Your task to perform on an android device: Go to network settings Image 0: 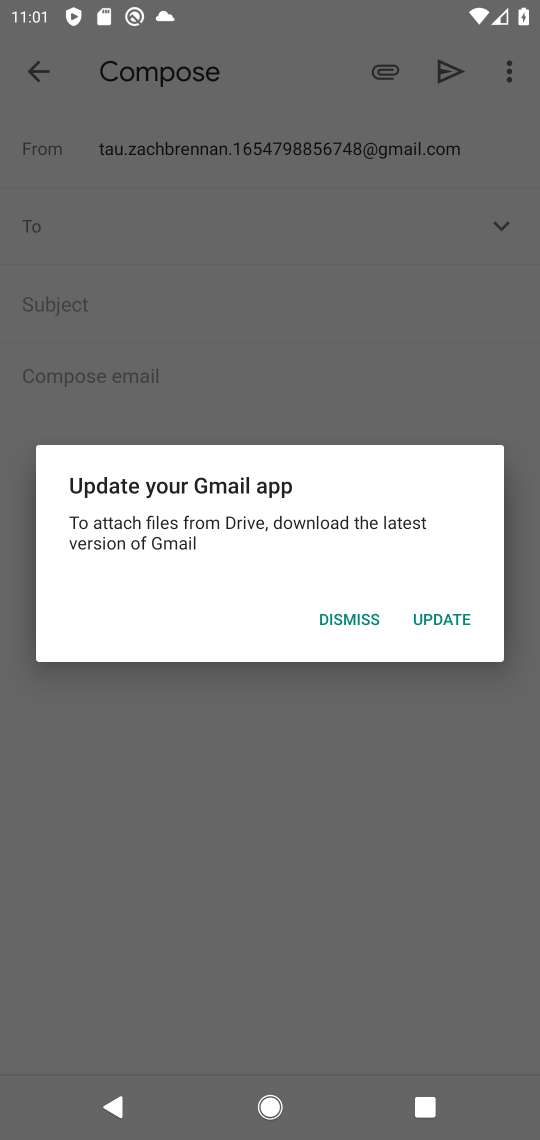
Step 0: press home button
Your task to perform on an android device: Go to network settings Image 1: 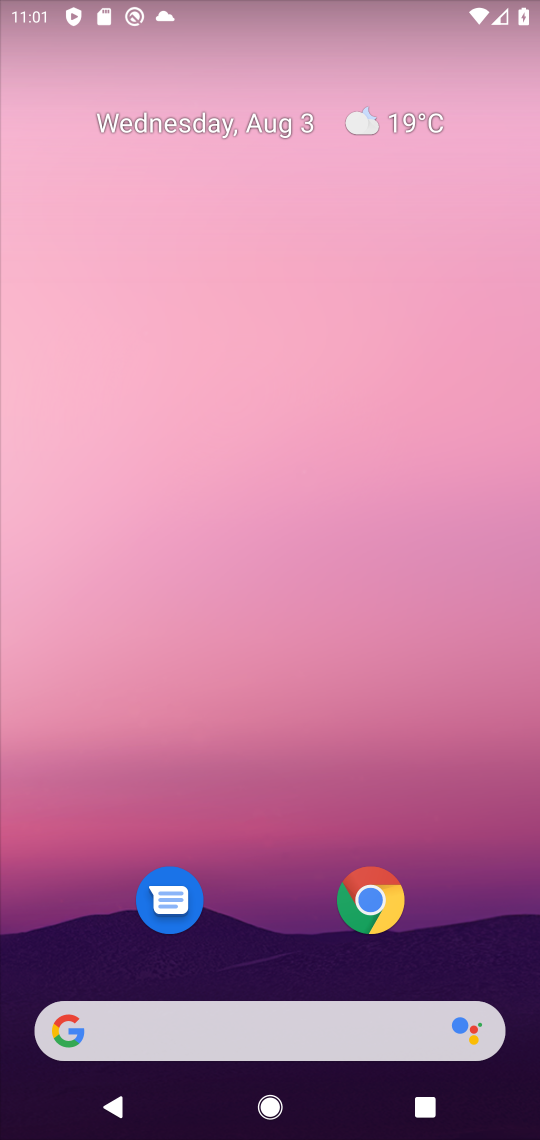
Step 1: drag from (267, 853) to (318, 264)
Your task to perform on an android device: Go to network settings Image 2: 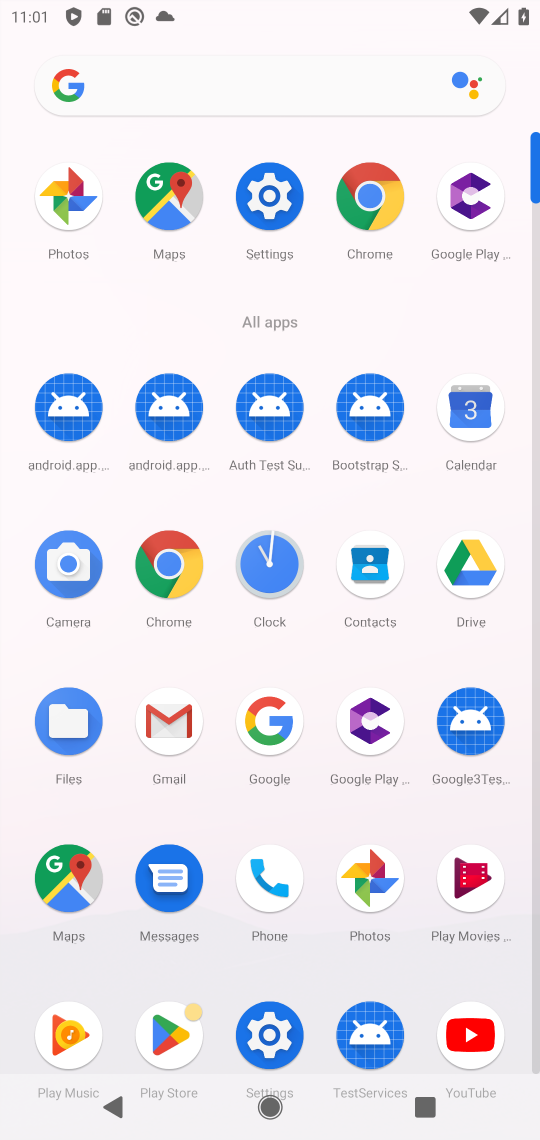
Step 2: click (249, 192)
Your task to perform on an android device: Go to network settings Image 3: 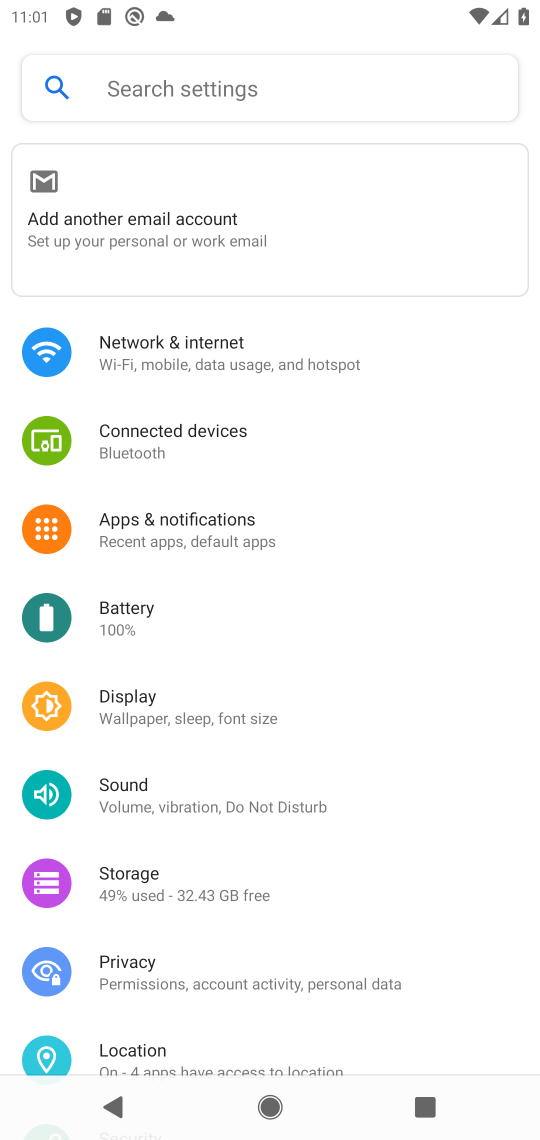
Step 3: drag from (216, 583) to (205, 223)
Your task to perform on an android device: Go to network settings Image 4: 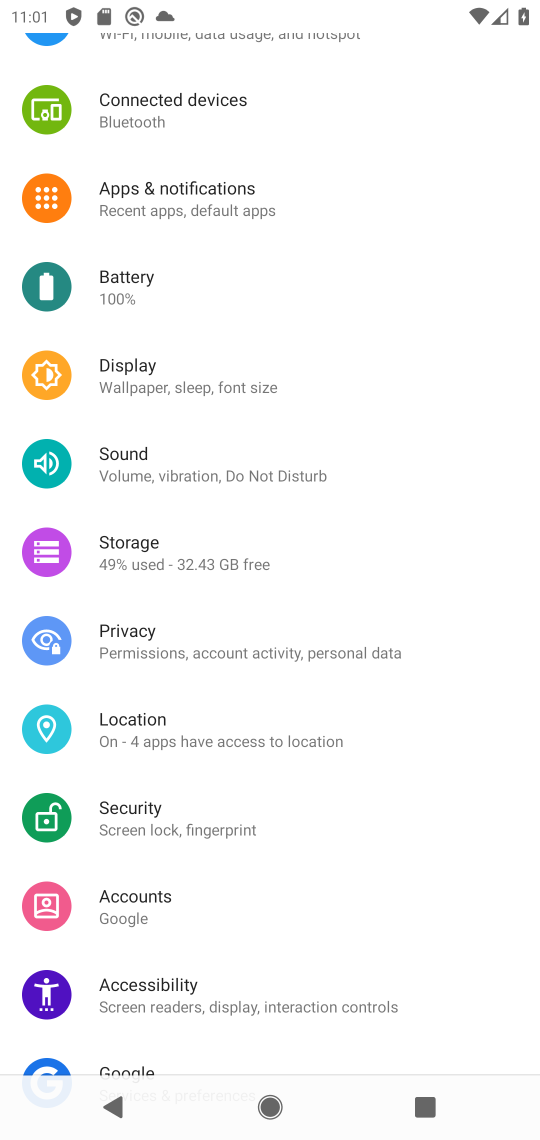
Step 4: drag from (131, 71) to (54, 275)
Your task to perform on an android device: Go to network settings Image 5: 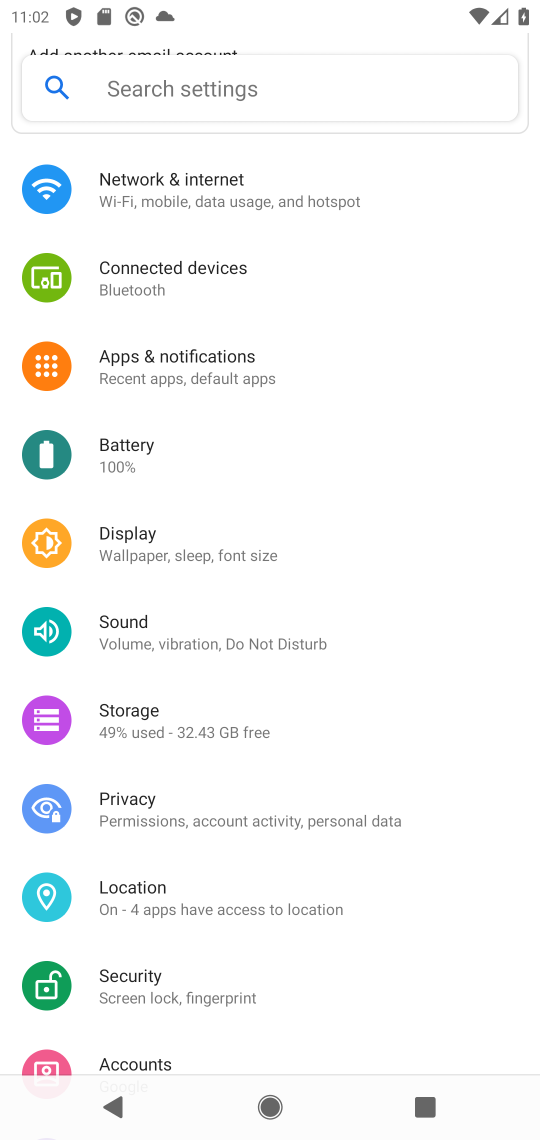
Step 5: click (184, 196)
Your task to perform on an android device: Go to network settings Image 6: 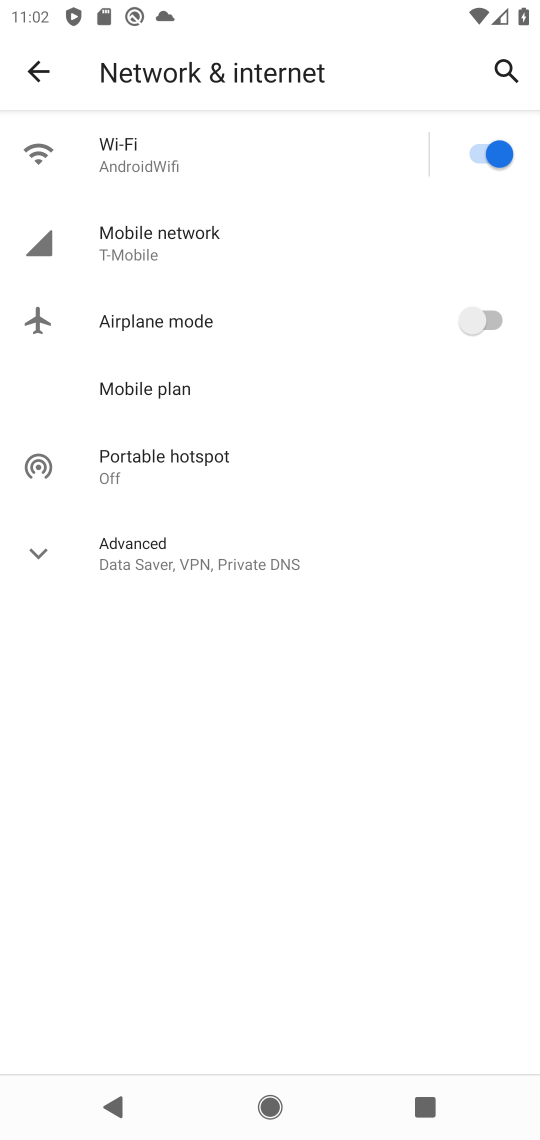
Step 6: task complete